Your task to perform on an android device: Go to Yahoo.com Image 0: 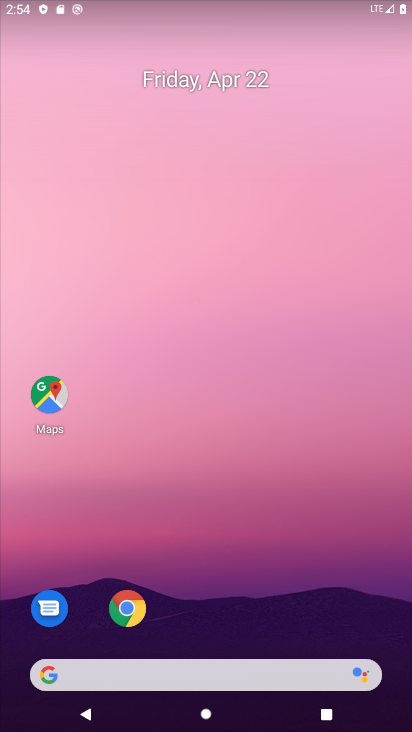
Step 0: drag from (262, 698) to (247, 213)
Your task to perform on an android device: Go to Yahoo.com Image 1: 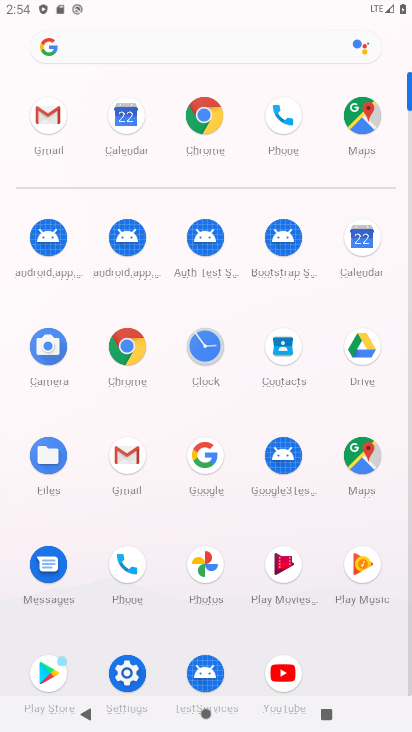
Step 1: click (214, 130)
Your task to perform on an android device: Go to Yahoo.com Image 2: 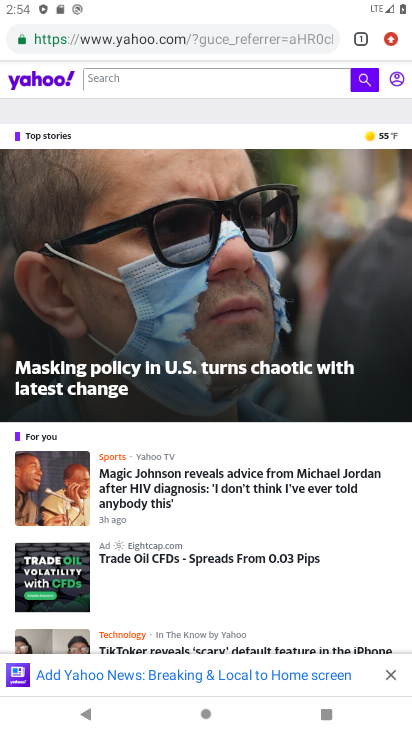
Step 2: click (143, 41)
Your task to perform on an android device: Go to Yahoo.com Image 3: 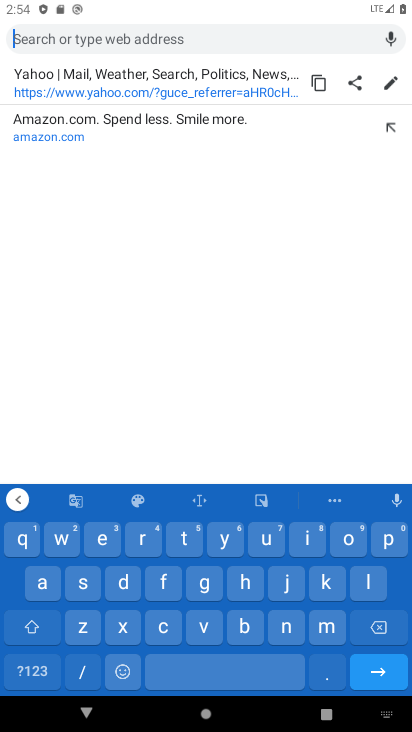
Step 3: click (94, 86)
Your task to perform on an android device: Go to Yahoo.com Image 4: 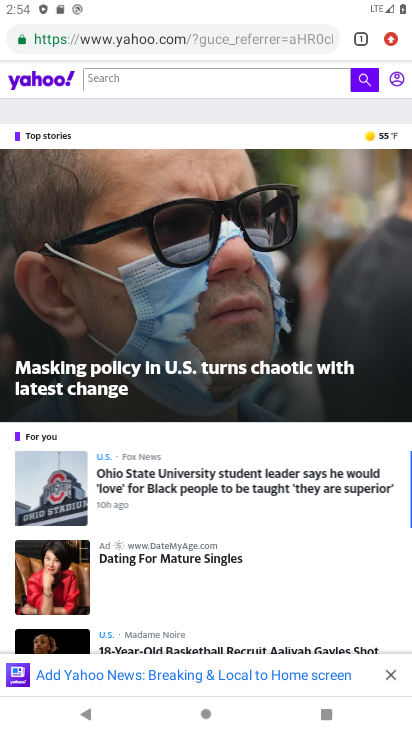
Step 4: task complete